Your task to perform on an android device: Is it going to rain tomorrow? Image 0: 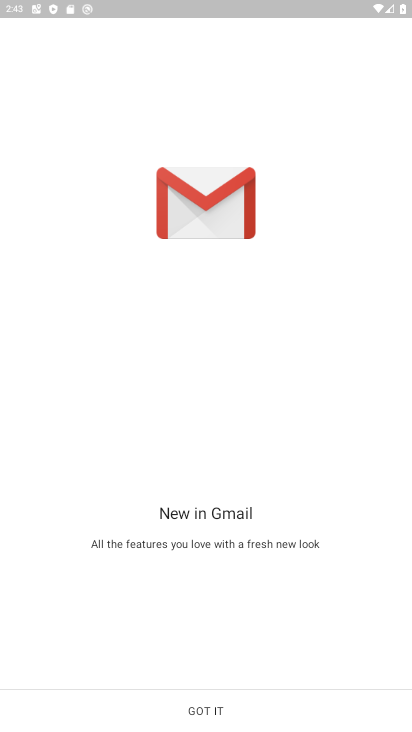
Step 0: press home button
Your task to perform on an android device: Is it going to rain tomorrow? Image 1: 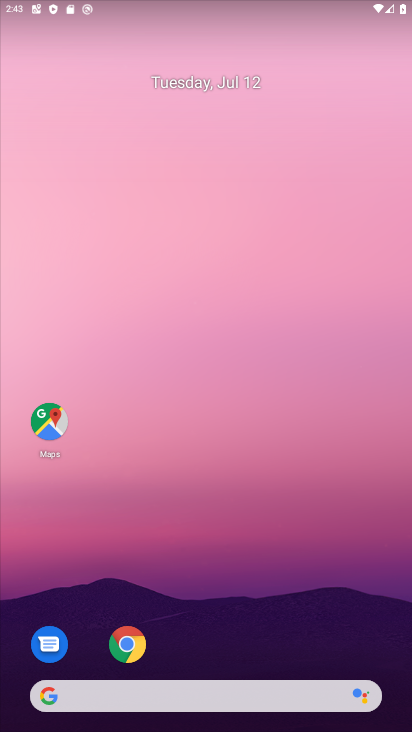
Step 1: click (197, 699)
Your task to perform on an android device: Is it going to rain tomorrow? Image 2: 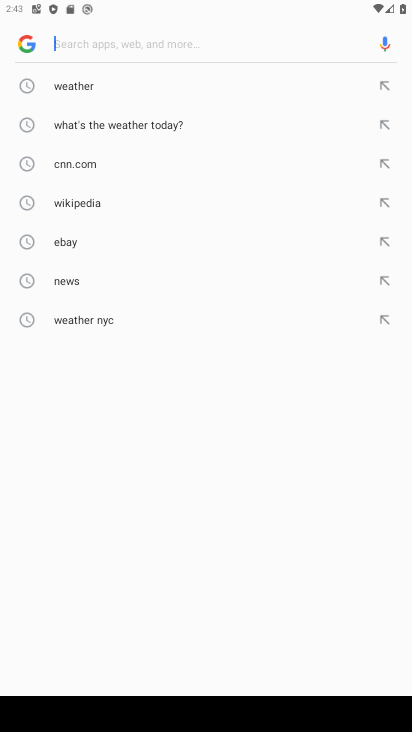
Step 2: click (127, 86)
Your task to perform on an android device: Is it going to rain tomorrow? Image 3: 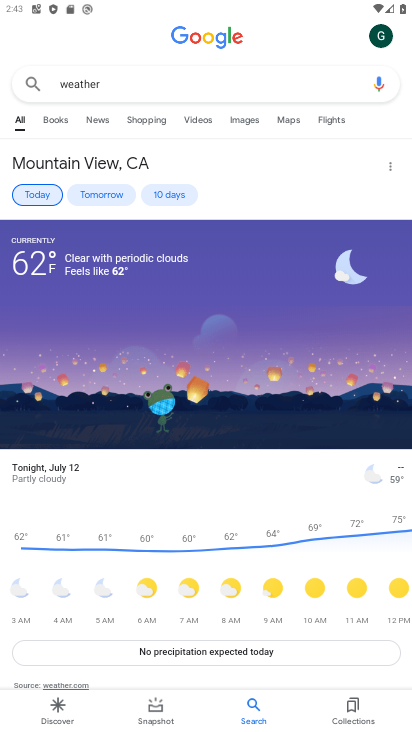
Step 3: task complete